Your task to perform on an android device: delete browsing data in the chrome app Image 0: 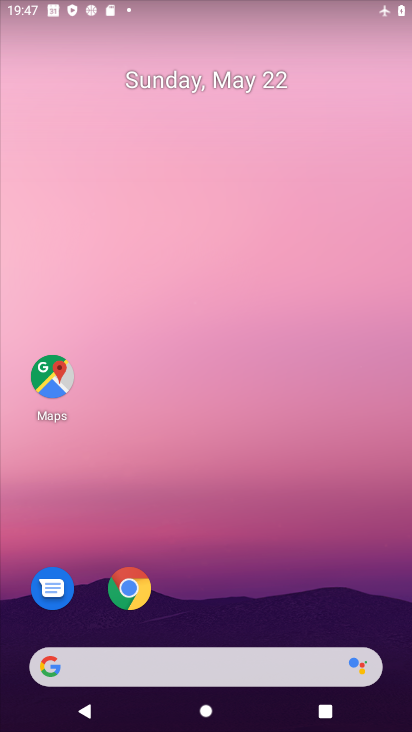
Step 0: click (126, 592)
Your task to perform on an android device: delete browsing data in the chrome app Image 1: 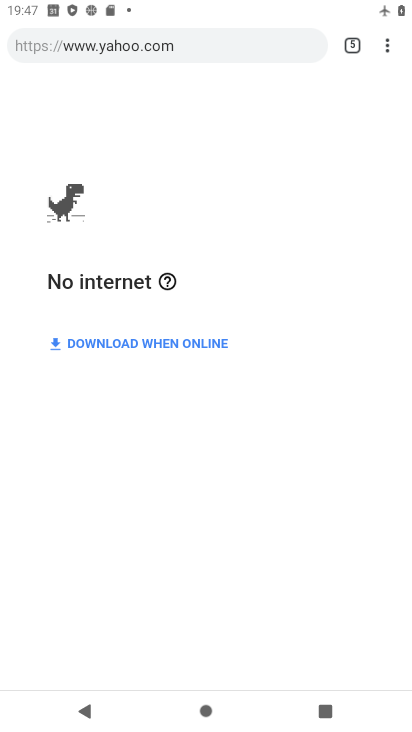
Step 1: click (387, 44)
Your task to perform on an android device: delete browsing data in the chrome app Image 2: 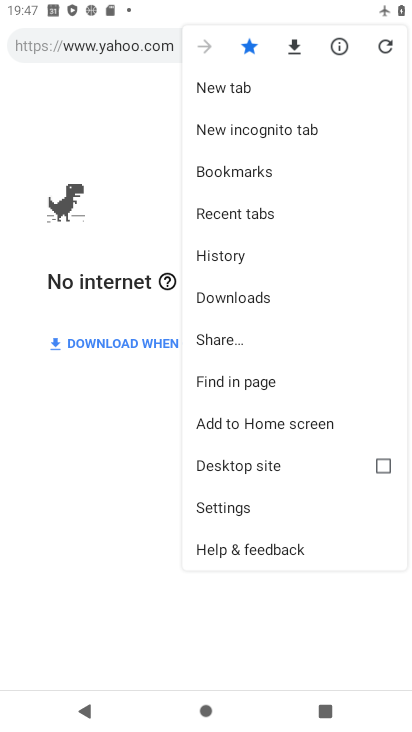
Step 2: click (235, 246)
Your task to perform on an android device: delete browsing data in the chrome app Image 3: 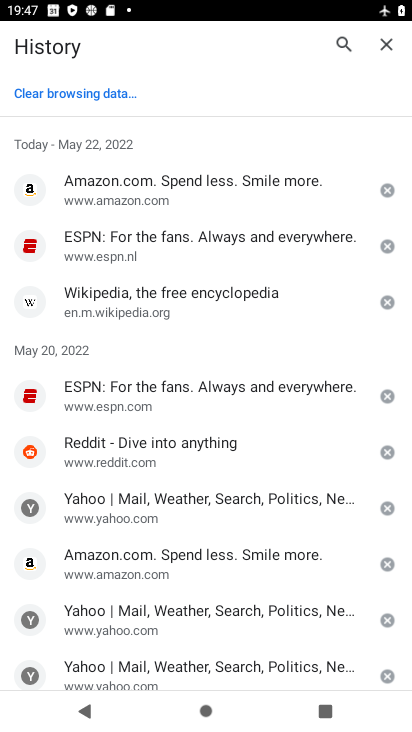
Step 3: click (78, 89)
Your task to perform on an android device: delete browsing data in the chrome app Image 4: 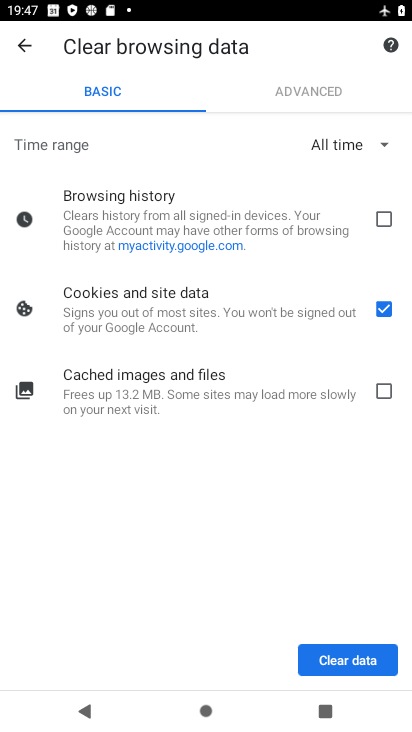
Step 4: click (384, 215)
Your task to perform on an android device: delete browsing data in the chrome app Image 5: 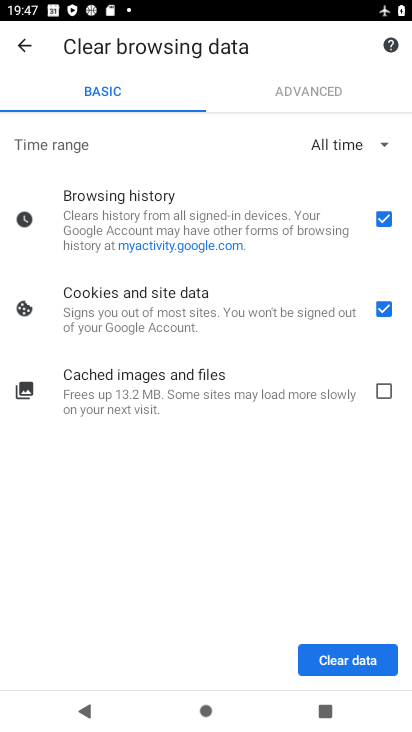
Step 5: click (391, 391)
Your task to perform on an android device: delete browsing data in the chrome app Image 6: 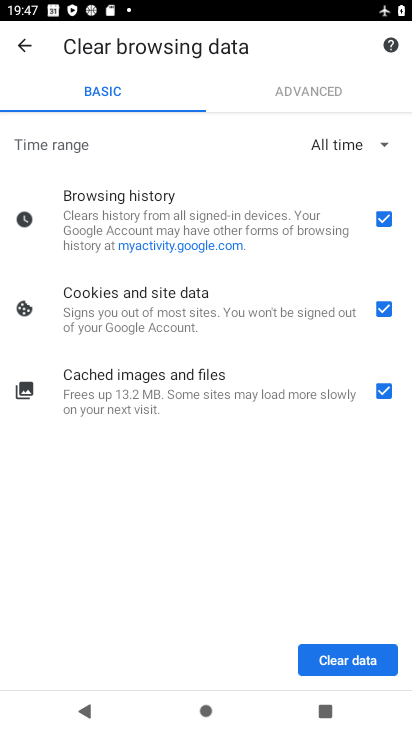
Step 6: click (337, 663)
Your task to perform on an android device: delete browsing data in the chrome app Image 7: 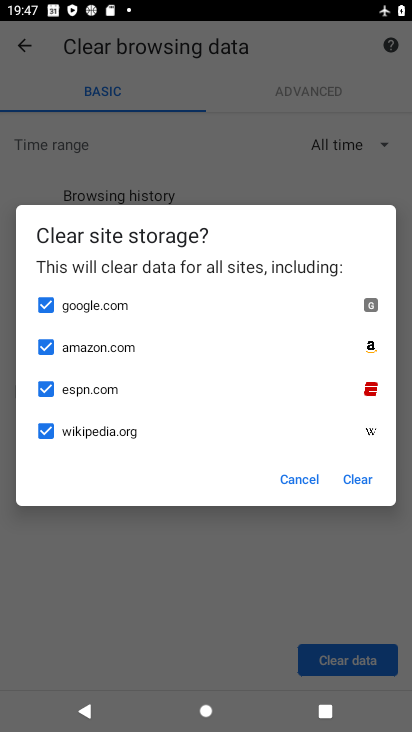
Step 7: click (358, 468)
Your task to perform on an android device: delete browsing data in the chrome app Image 8: 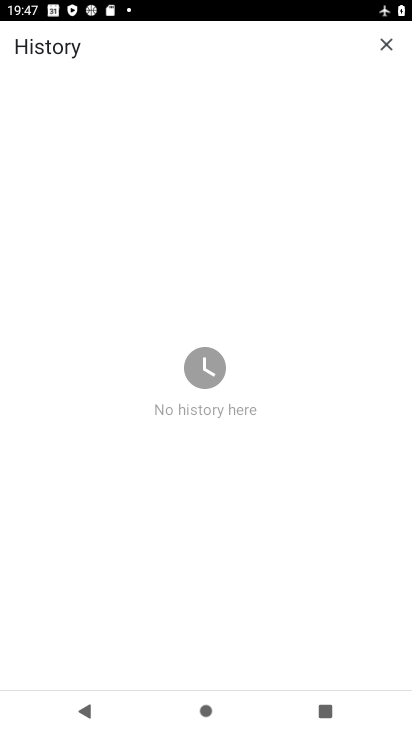
Step 8: task complete